Your task to perform on an android device: change the clock display to digital Image 0: 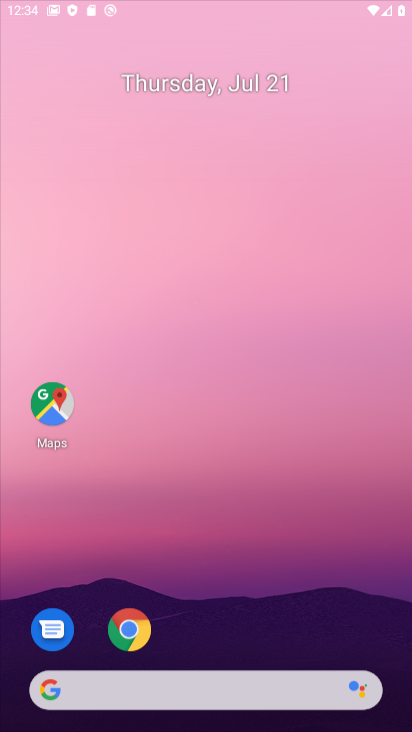
Step 0: drag from (269, 191) to (272, 229)
Your task to perform on an android device: change the clock display to digital Image 1: 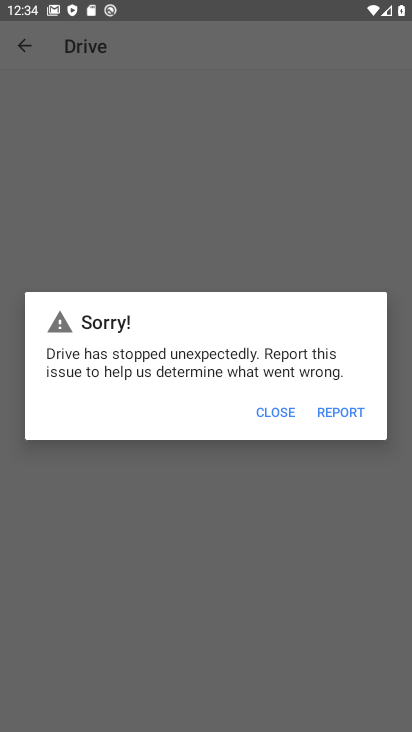
Step 1: press home button
Your task to perform on an android device: change the clock display to digital Image 2: 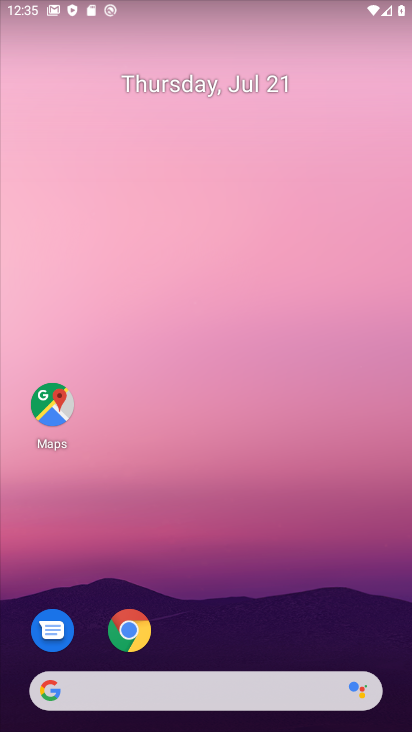
Step 2: drag from (384, 656) to (268, 266)
Your task to perform on an android device: change the clock display to digital Image 3: 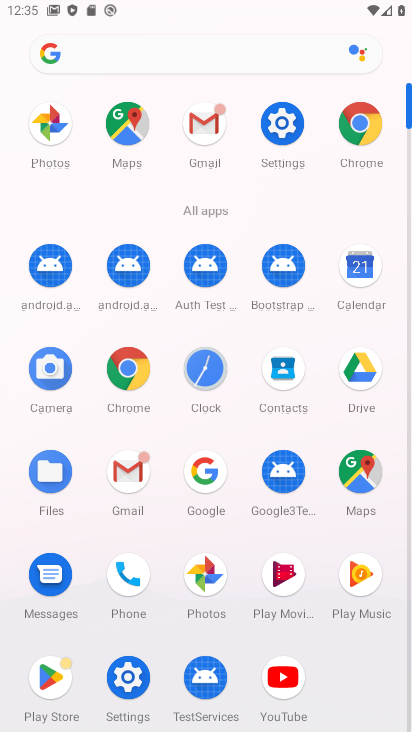
Step 3: click (211, 370)
Your task to perform on an android device: change the clock display to digital Image 4: 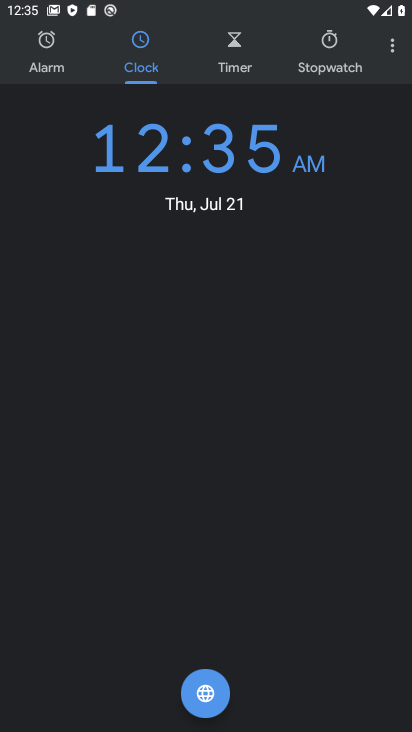
Step 4: click (390, 39)
Your task to perform on an android device: change the clock display to digital Image 5: 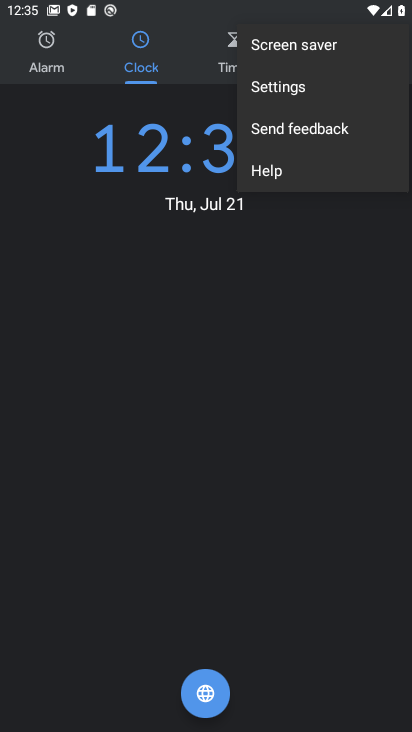
Step 5: click (362, 75)
Your task to perform on an android device: change the clock display to digital Image 6: 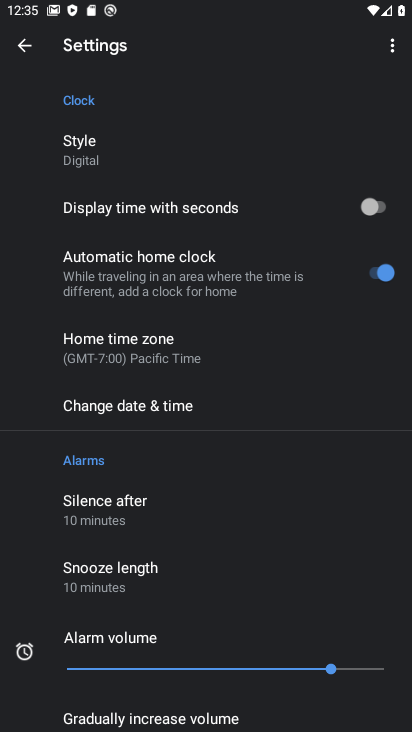
Step 6: click (230, 160)
Your task to perform on an android device: change the clock display to digital Image 7: 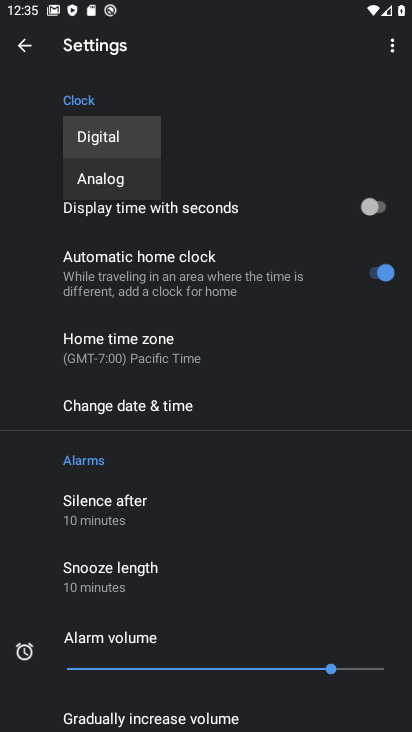
Step 7: task complete